Your task to perform on an android device: Do I have any events today? Image 0: 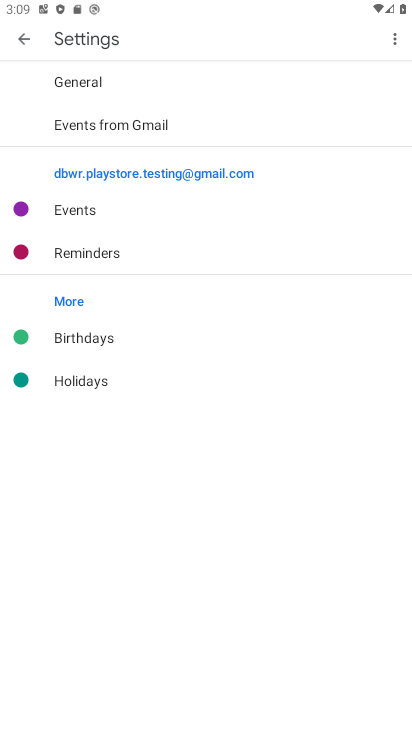
Step 0: press home button
Your task to perform on an android device: Do I have any events today? Image 1: 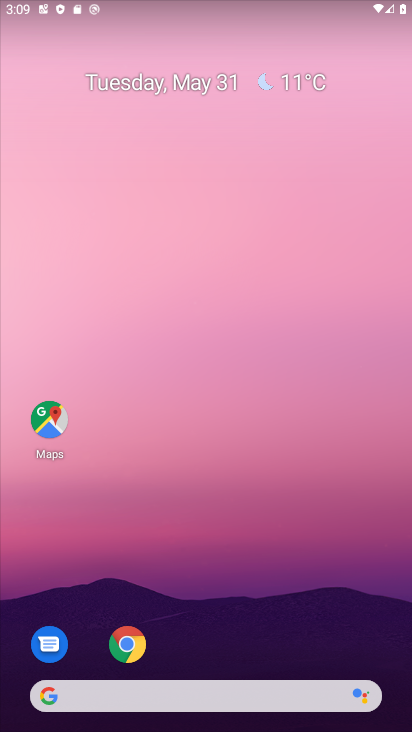
Step 1: click (47, 432)
Your task to perform on an android device: Do I have any events today? Image 2: 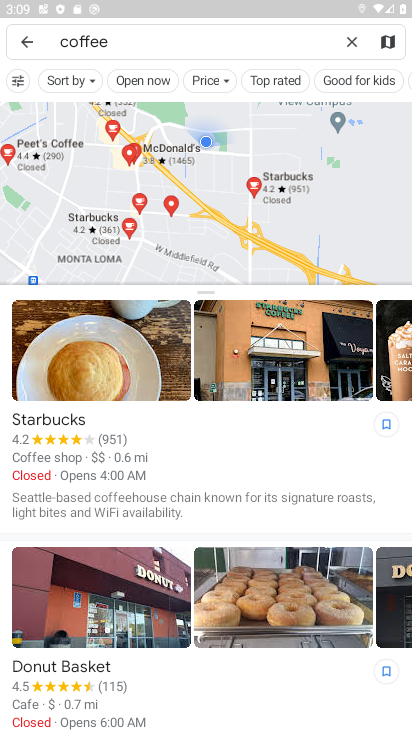
Step 2: press home button
Your task to perform on an android device: Do I have any events today? Image 3: 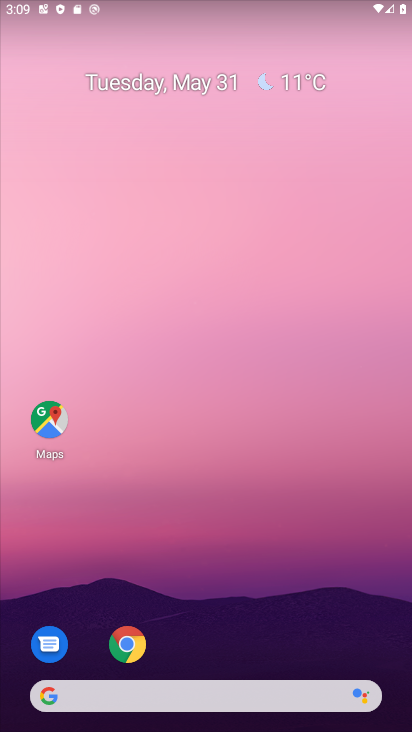
Step 3: drag from (221, 637) to (186, 63)
Your task to perform on an android device: Do I have any events today? Image 4: 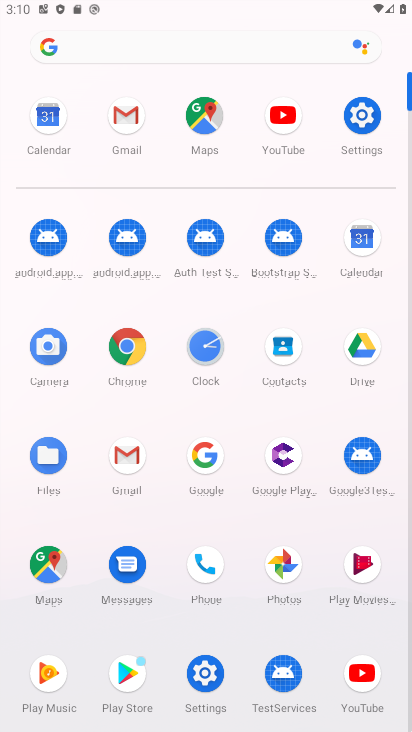
Step 4: click (56, 107)
Your task to perform on an android device: Do I have any events today? Image 5: 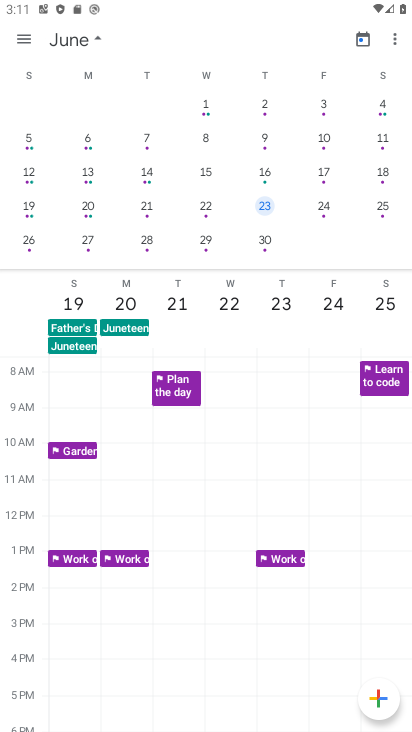
Step 5: click (75, 35)
Your task to perform on an android device: Do I have any events today? Image 6: 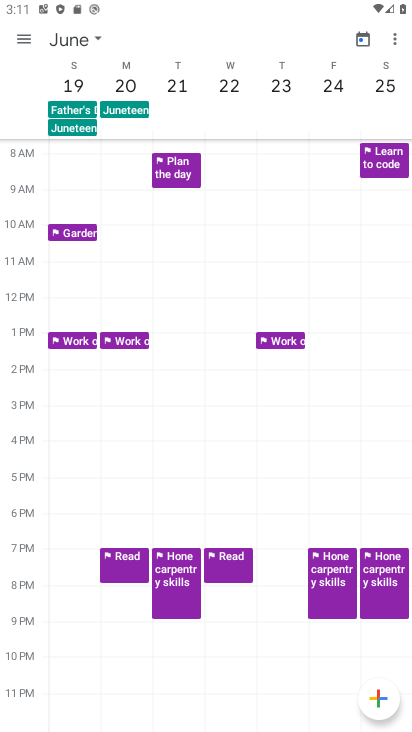
Step 6: click (75, 35)
Your task to perform on an android device: Do I have any events today? Image 7: 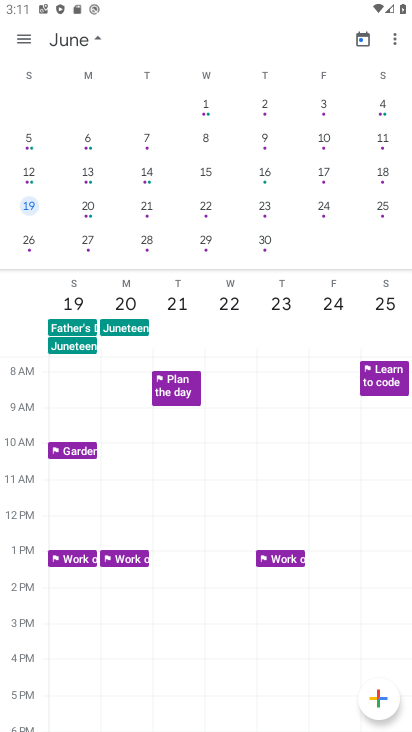
Step 7: click (75, 35)
Your task to perform on an android device: Do I have any events today? Image 8: 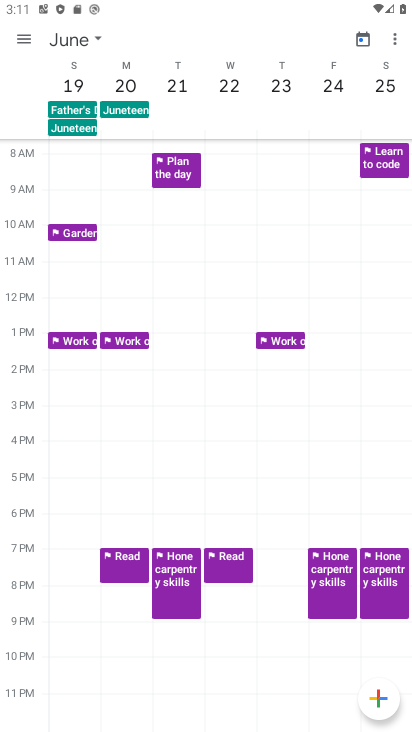
Step 8: click (80, 40)
Your task to perform on an android device: Do I have any events today? Image 9: 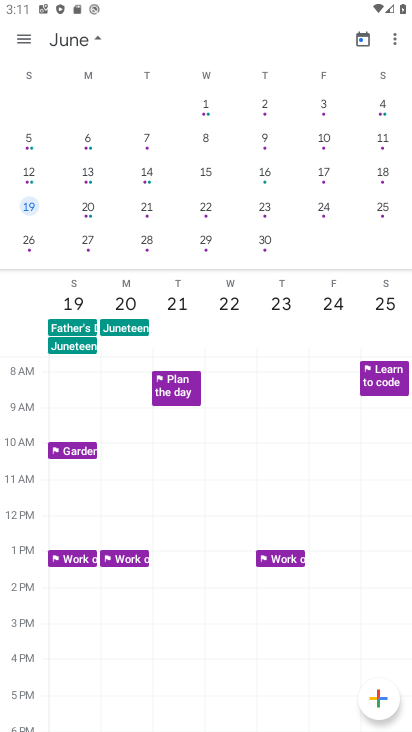
Step 9: task complete